Your task to perform on an android device: Do I have any events today? Image 0: 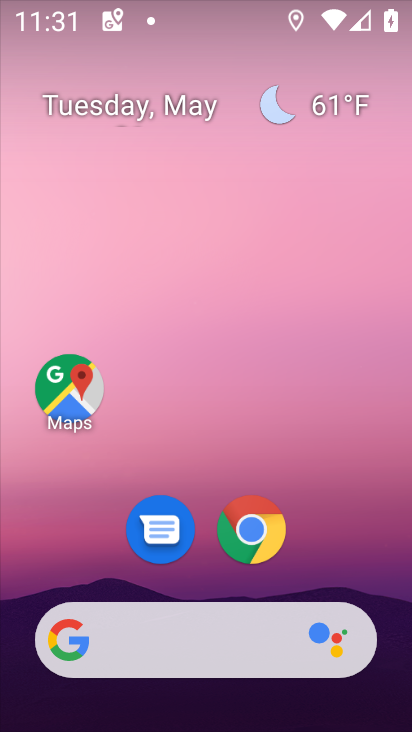
Step 0: drag from (344, 563) to (95, 189)
Your task to perform on an android device: Do I have any events today? Image 1: 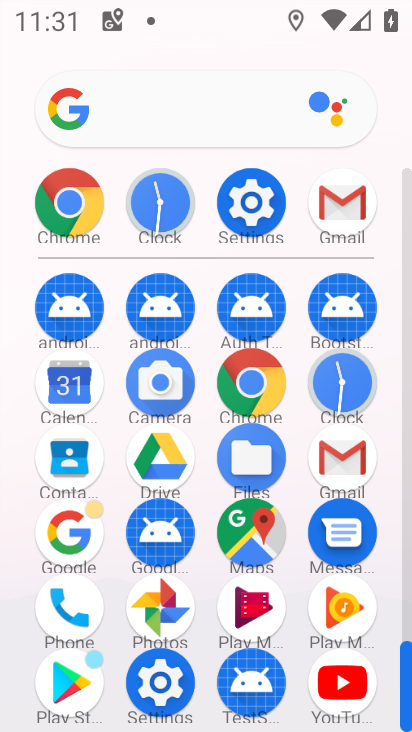
Step 1: click (72, 396)
Your task to perform on an android device: Do I have any events today? Image 2: 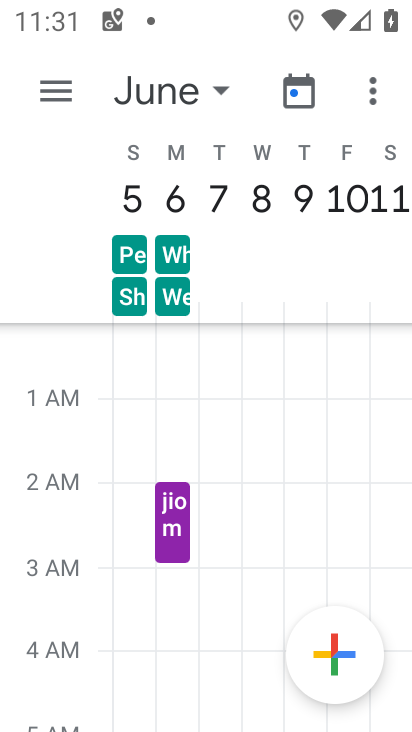
Step 2: click (197, 87)
Your task to perform on an android device: Do I have any events today? Image 3: 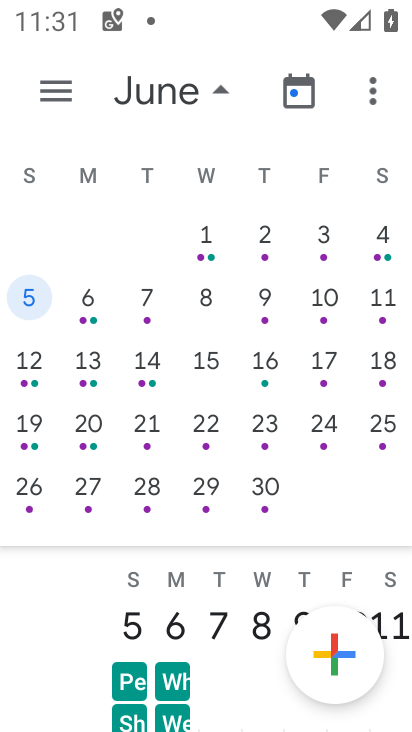
Step 3: drag from (83, 371) to (397, 378)
Your task to perform on an android device: Do I have any events today? Image 4: 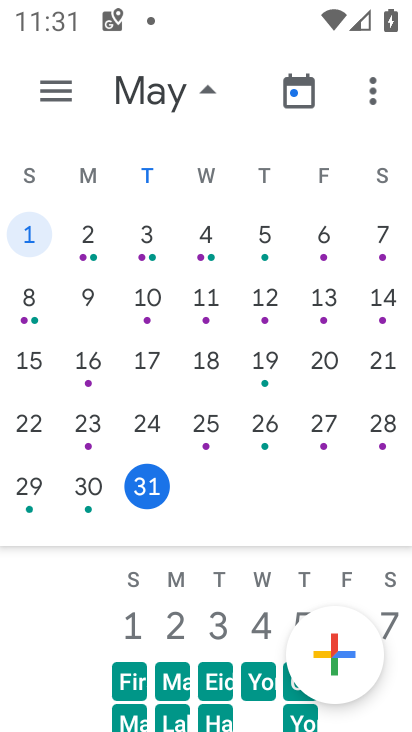
Step 4: click (139, 489)
Your task to perform on an android device: Do I have any events today? Image 5: 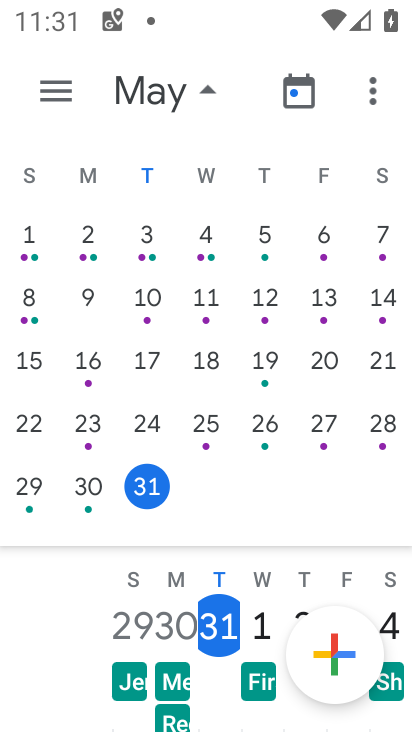
Step 5: click (174, 95)
Your task to perform on an android device: Do I have any events today? Image 6: 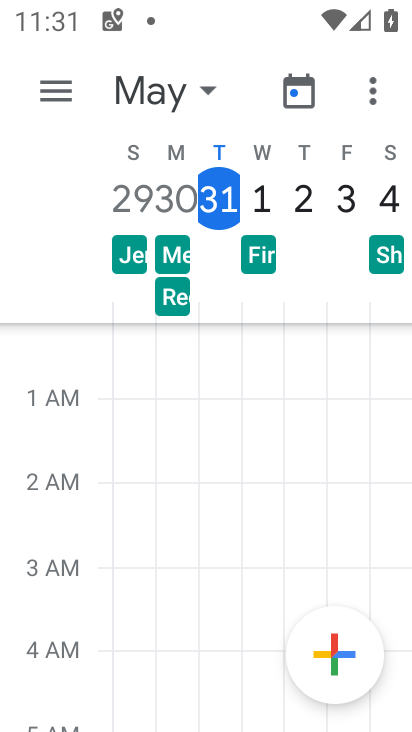
Step 6: drag from (217, 481) to (173, 9)
Your task to perform on an android device: Do I have any events today? Image 7: 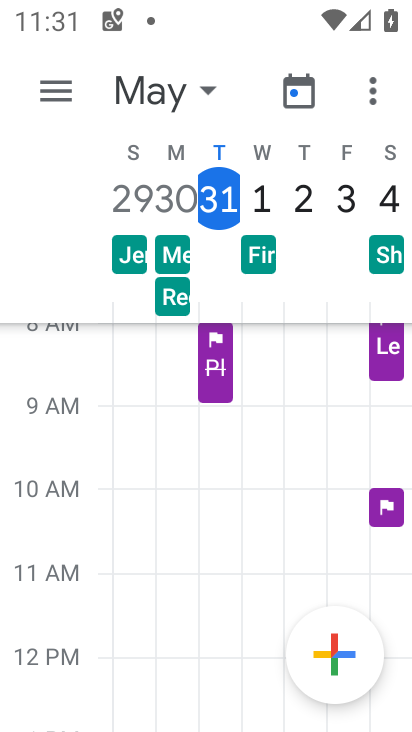
Step 7: drag from (220, 573) to (235, 506)
Your task to perform on an android device: Do I have any events today? Image 8: 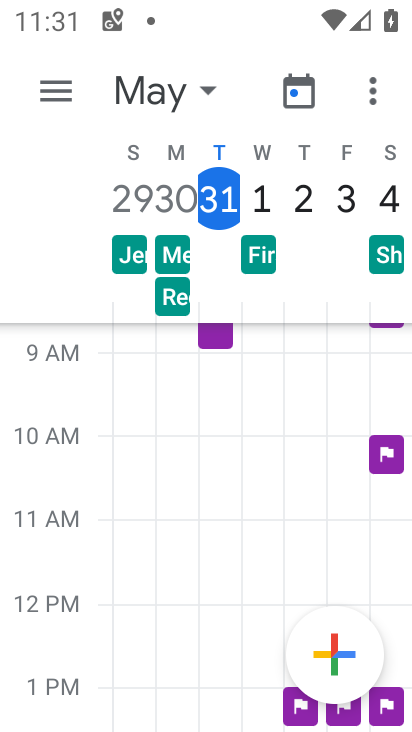
Step 8: drag from (235, 506) to (231, 404)
Your task to perform on an android device: Do I have any events today? Image 9: 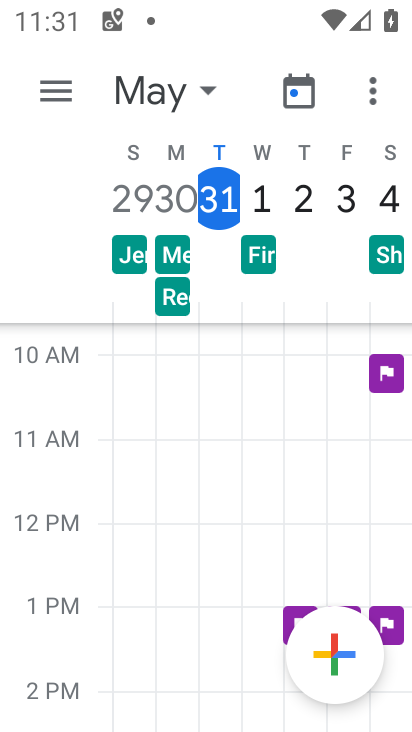
Step 9: drag from (208, 625) to (196, 306)
Your task to perform on an android device: Do I have any events today? Image 10: 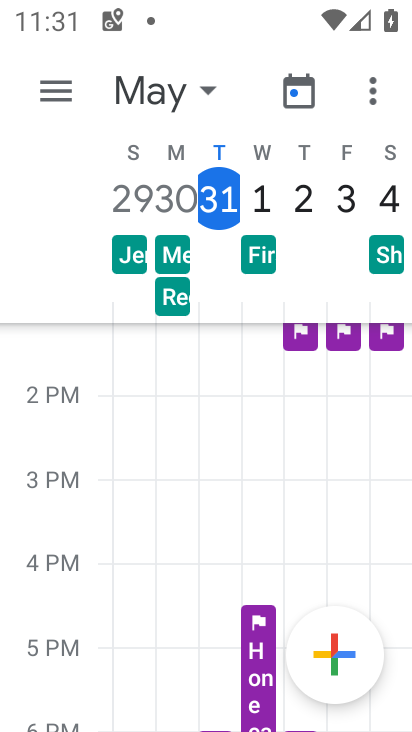
Step 10: drag from (235, 578) to (215, 324)
Your task to perform on an android device: Do I have any events today? Image 11: 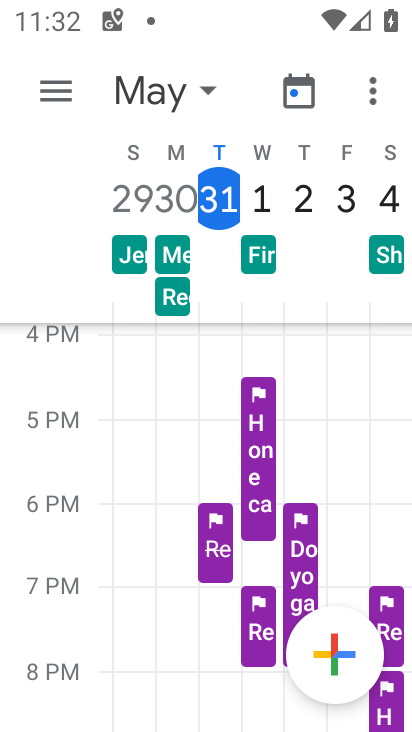
Step 11: click (56, 98)
Your task to perform on an android device: Do I have any events today? Image 12: 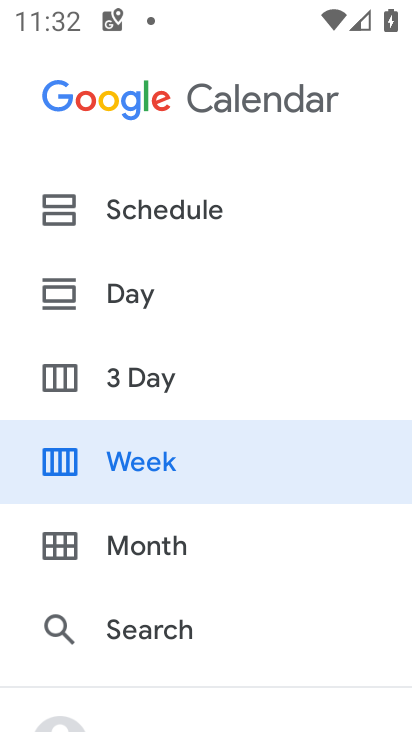
Step 12: click (79, 207)
Your task to perform on an android device: Do I have any events today? Image 13: 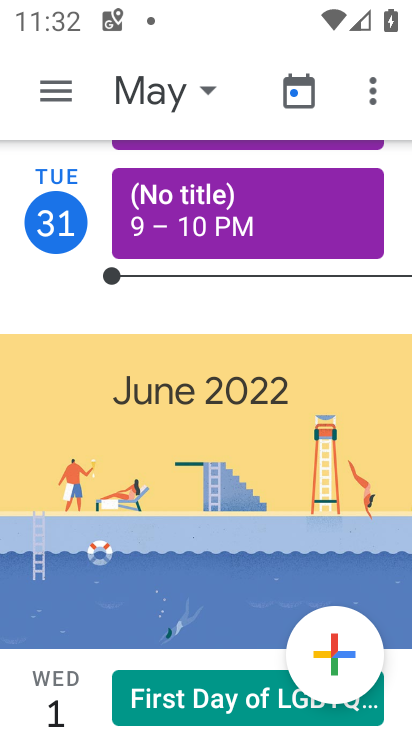
Step 13: task complete